Your task to perform on an android device: turn on wifi Image 0: 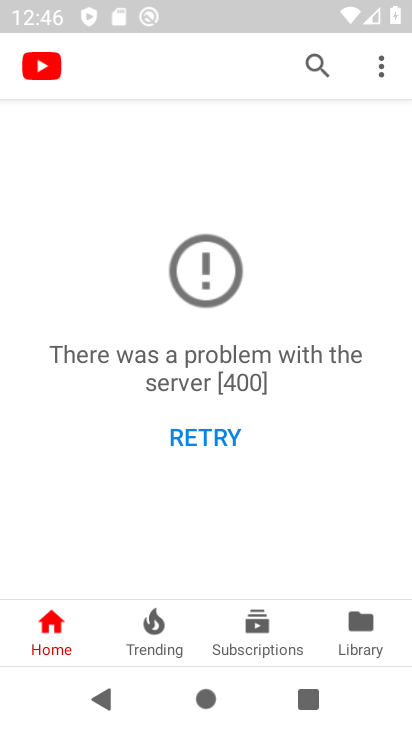
Step 0: press home button
Your task to perform on an android device: turn on wifi Image 1: 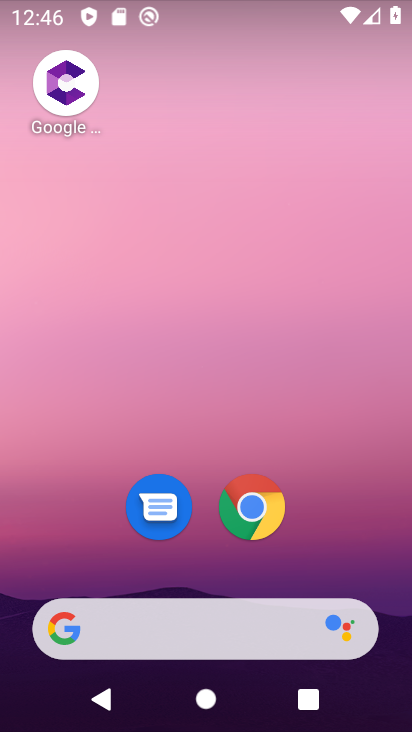
Step 1: drag from (358, 624) to (362, 0)
Your task to perform on an android device: turn on wifi Image 2: 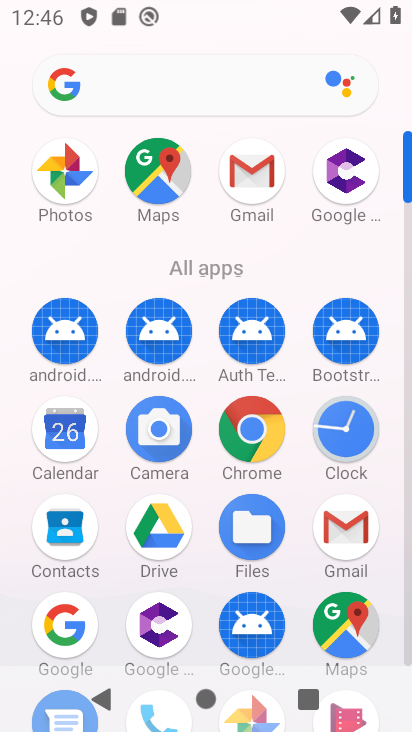
Step 2: drag from (285, 553) to (295, 86)
Your task to perform on an android device: turn on wifi Image 3: 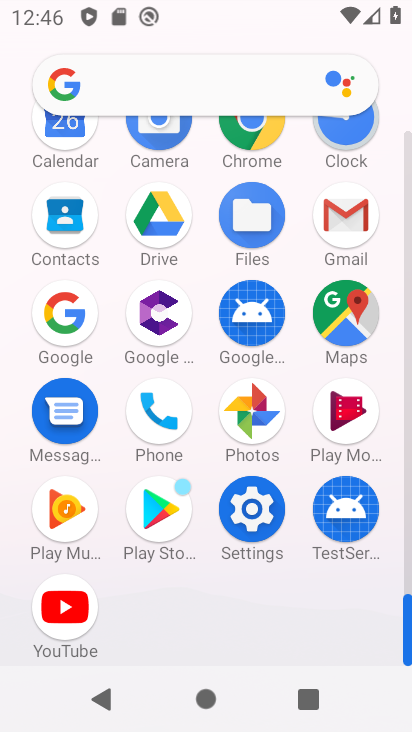
Step 3: click (258, 532)
Your task to perform on an android device: turn on wifi Image 4: 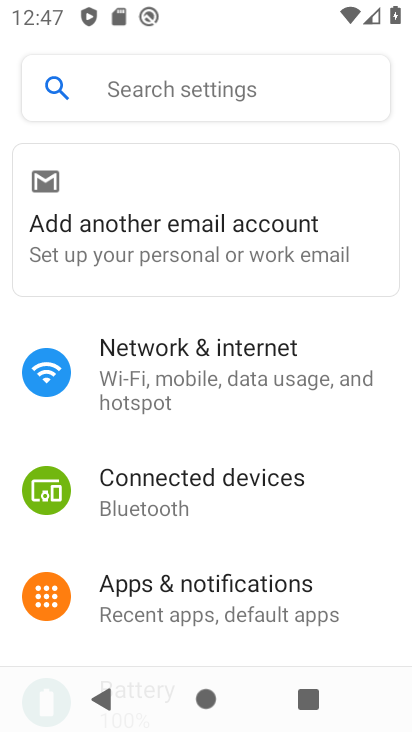
Step 4: click (197, 371)
Your task to perform on an android device: turn on wifi Image 5: 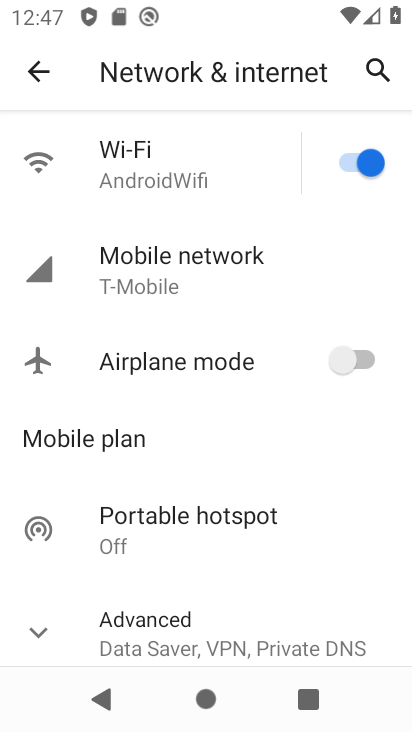
Step 5: task complete